Your task to perform on an android device: set the timer Image 0: 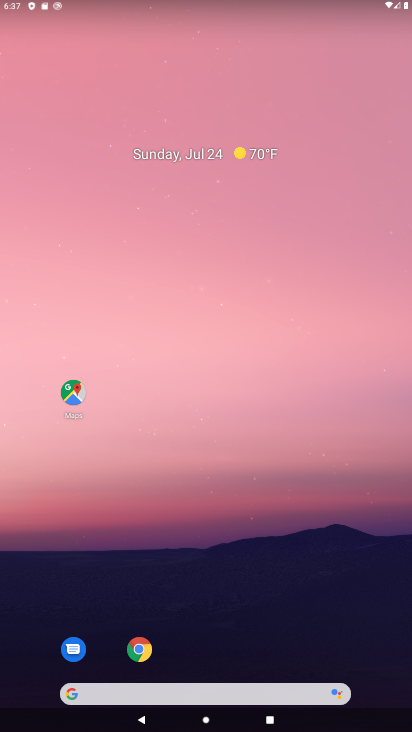
Step 0: drag from (224, 555) to (235, 29)
Your task to perform on an android device: set the timer Image 1: 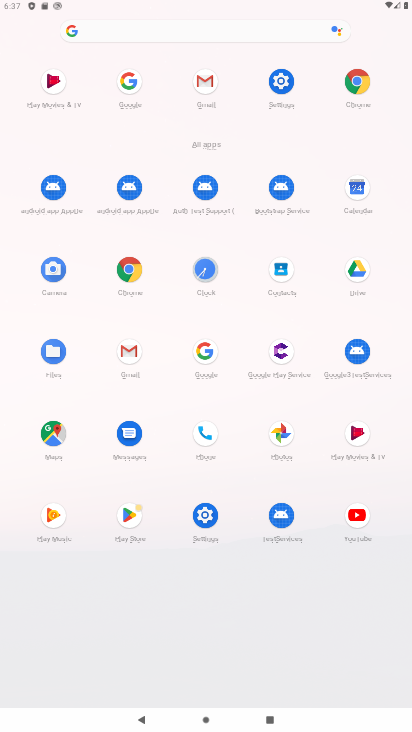
Step 1: click (201, 266)
Your task to perform on an android device: set the timer Image 2: 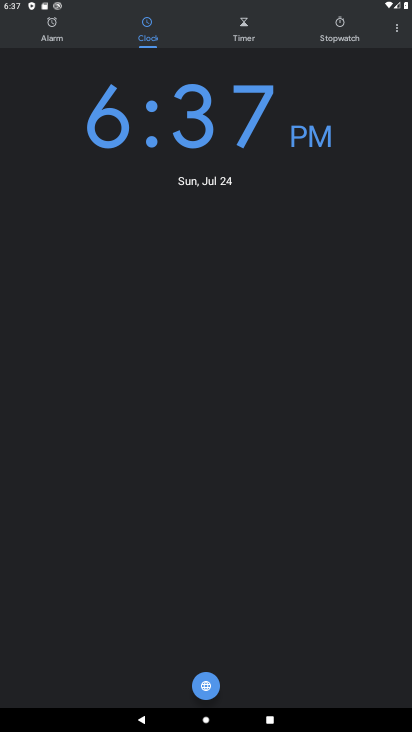
Step 2: click (246, 25)
Your task to perform on an android device: set the timer Image 3: 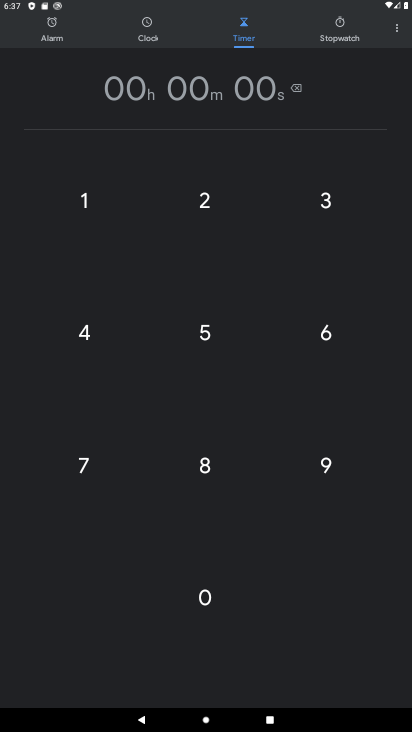
Step 3: click (83, 203)
Your task to perform on an android device: set the timer Image 4: 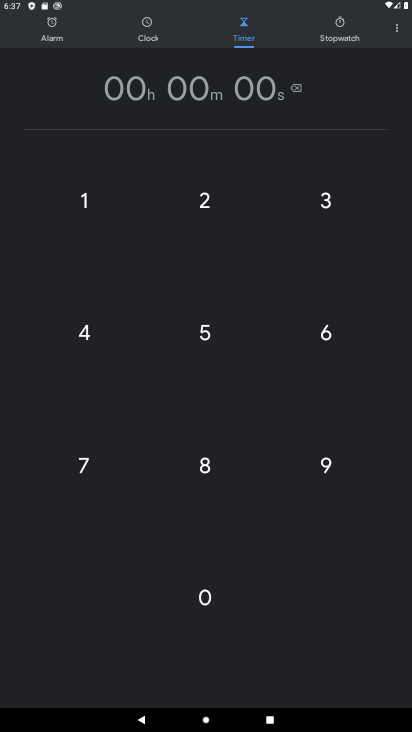
Step 4: click (83, 203)
Your task to perform on an android device: set the timer Image 5: 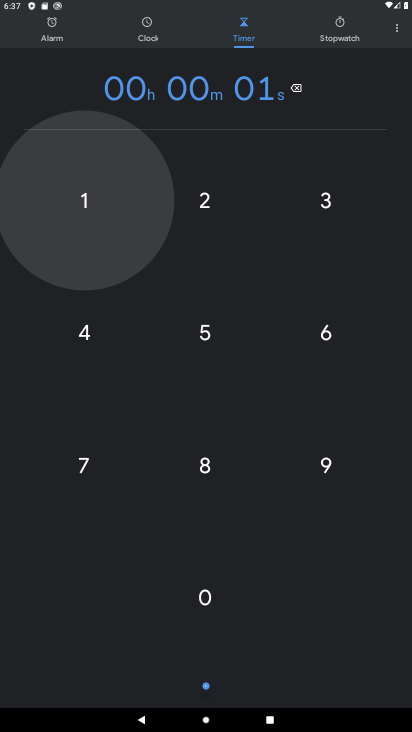
Step 5: click (83, 203)
Your task to perform on an android device: set the timer Image 6: 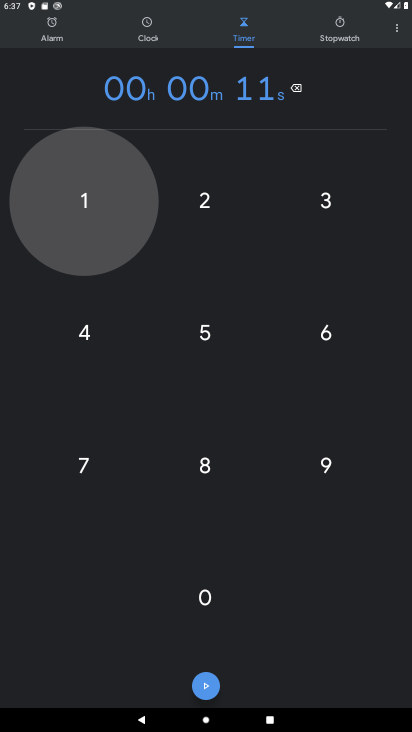
Step 6: click (83, 203)
Your task to perform on an android device: set the timer Image 7: 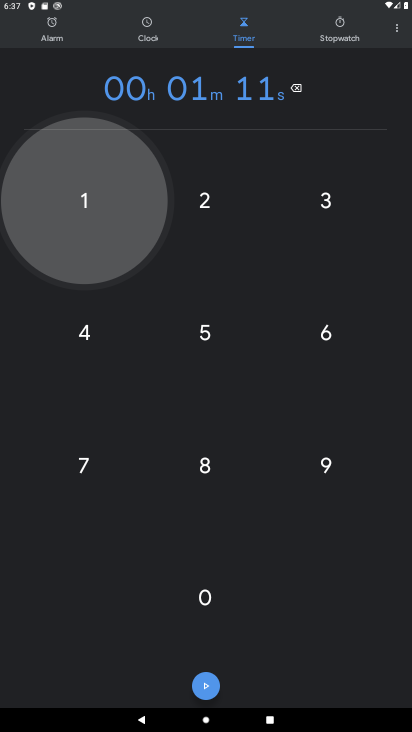
Step 7: click (83, 203)
Your task to perform on an android device: set the timer Image 8: 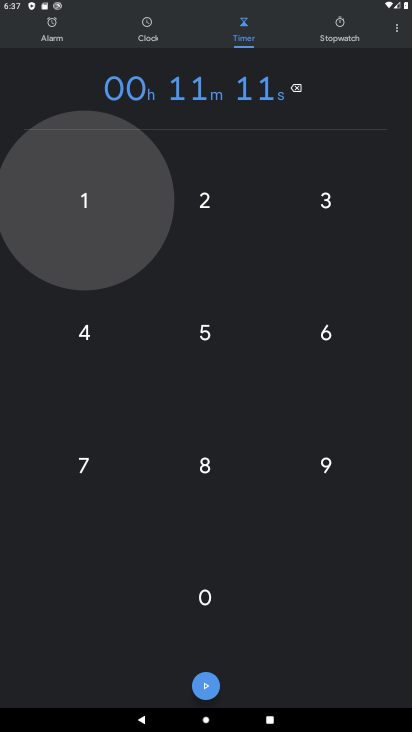
Step 8: click (83, 203)
Your task to perform on an android device: set the timer Image 9: 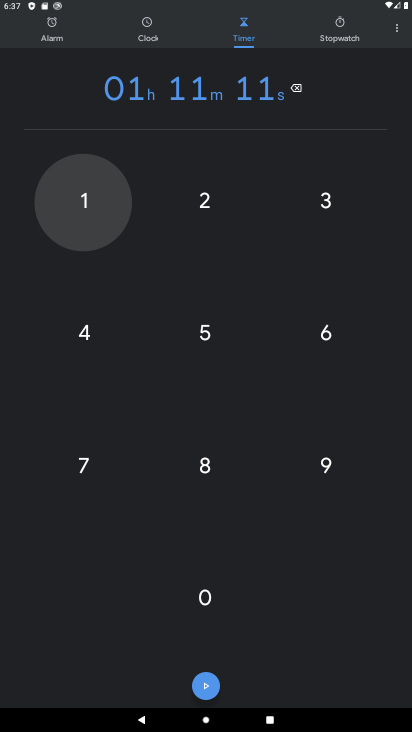
Step 9: click (83, 203)
Your task to perform on an android device: set the timer Image 10: 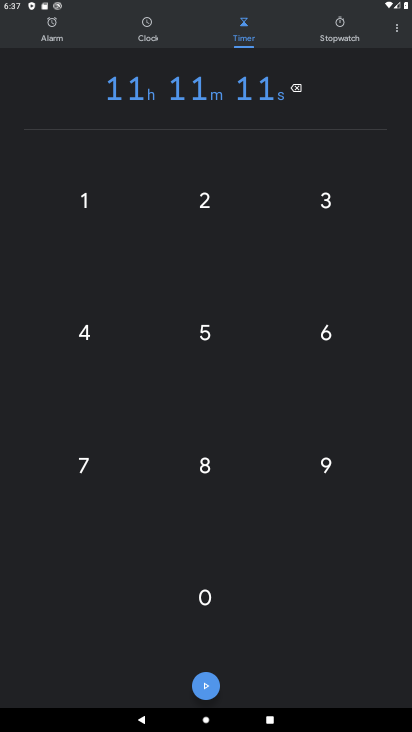
Step 10: task complete